Your task to perform on an android device: toggle improve location accuracy Image 0: 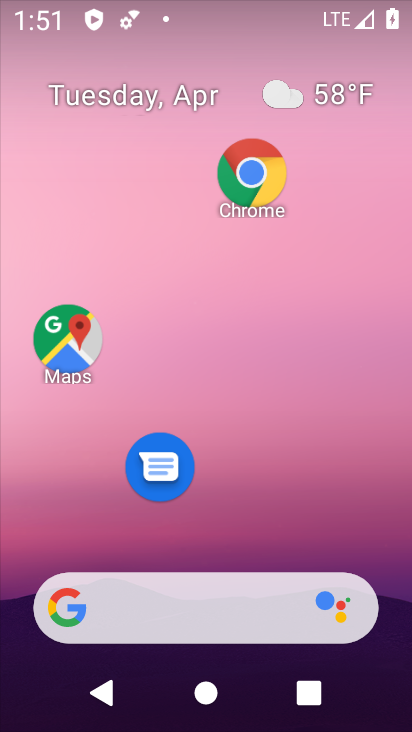
Step 0: drag from (232, 543) to (291, 44)
Your task to perform on an android device: toggle improve location accuracy Image 1: 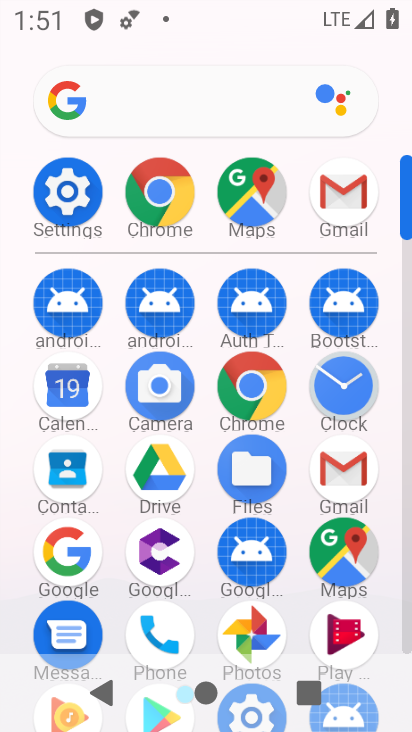
Step 1: click (82, 192)
Your task to perform on an android device: toggle improve location accuracy Image 2: 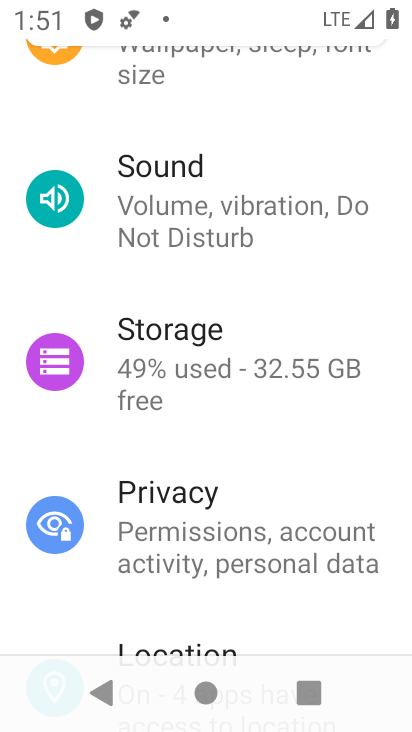
Step 2: drag from (200, 646) to (236, 264)
Your task to perform on an android device: toggle improve location accuracy Image 3: 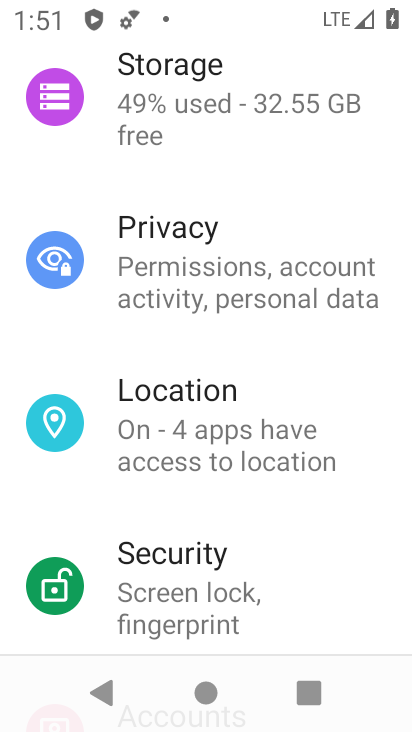
Step 3: click (213, 426)
Your task to perform on an android device: toggle improve location accuracy Image 4: 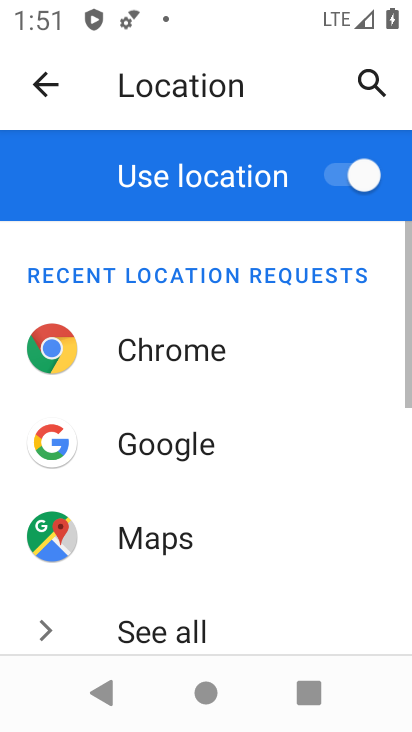
Step 4: drag from (244, 536) to (288, 243)
Your task to perform on an android device: toggle improve location accuracy Image 5: 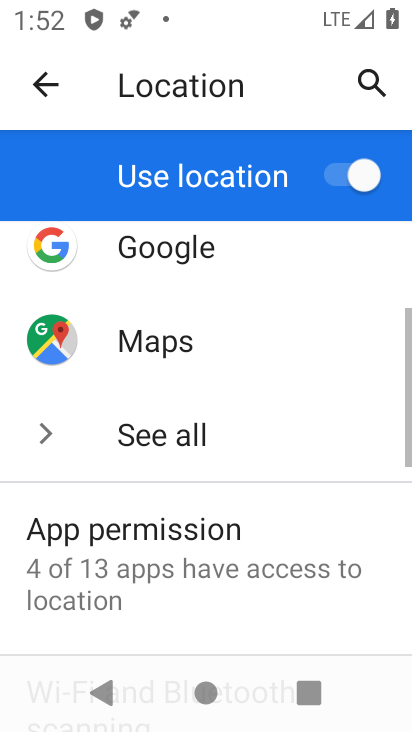
Step 5: drag from (289, 524) to (307, 243)
Your task to perform on an android device: toggle improve location accuracy Image 6: 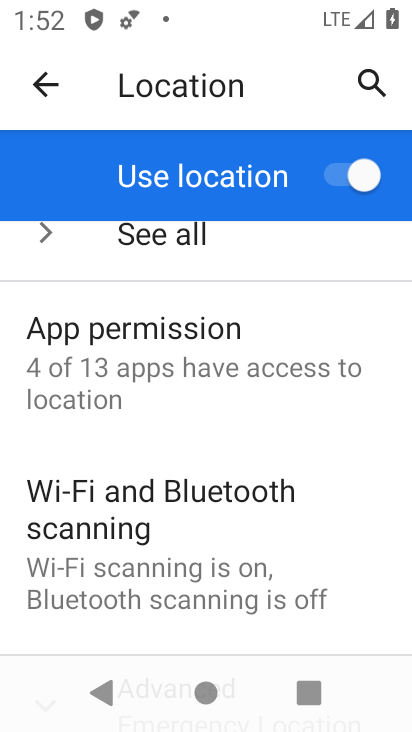
Step 6: drag from (264, 526) to (289, 158)
Your task to perform on an android device: toggle improve location accuracy Image 7: 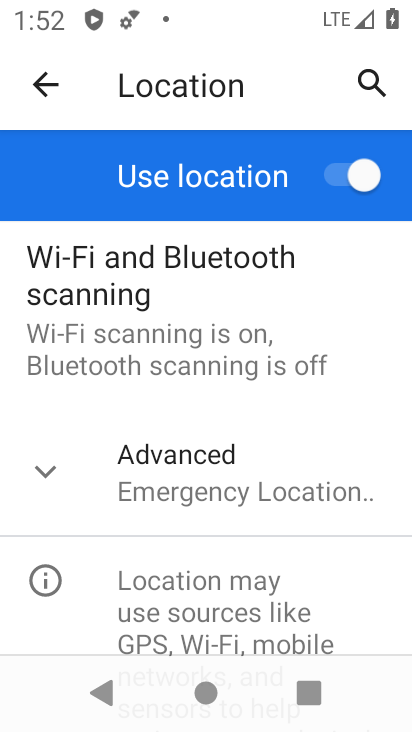
Step 7: click (200, 487)
Your task to perform on an android device: toggle improve location accuracy Image 8: 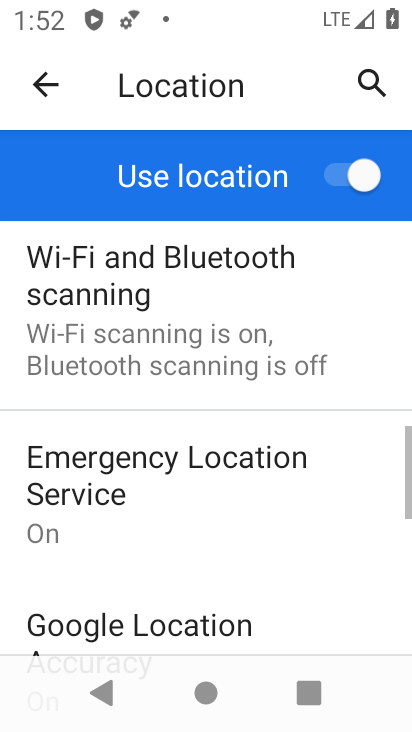
Step 8: drag from (198, 619) to (284, 260)
Your task to perform on an android device: toggle improve location accuracy Image 9: 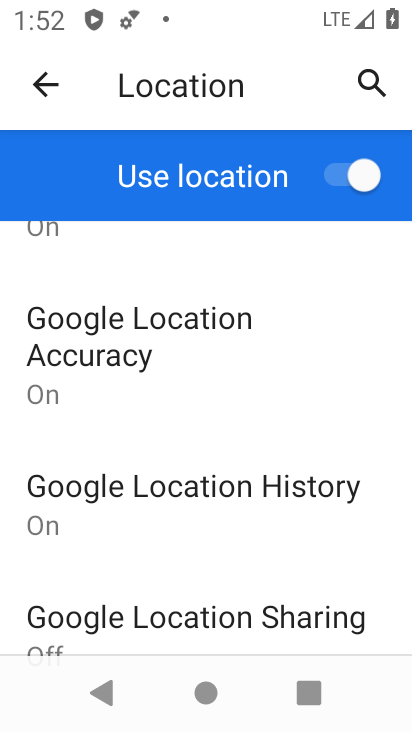
Step 9: click (146, 371)
Your task to perform on an android device: toggle improve location accuracy Image 10: 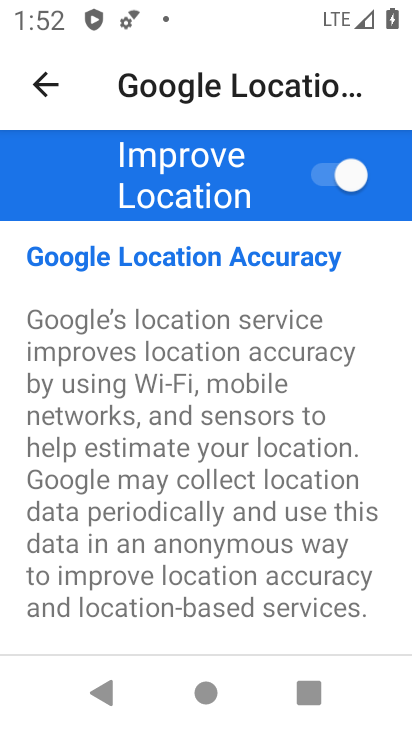
Step 10: click (330, 174)
Your task to perform on an android device: toggle improve location accuracy Image 11: 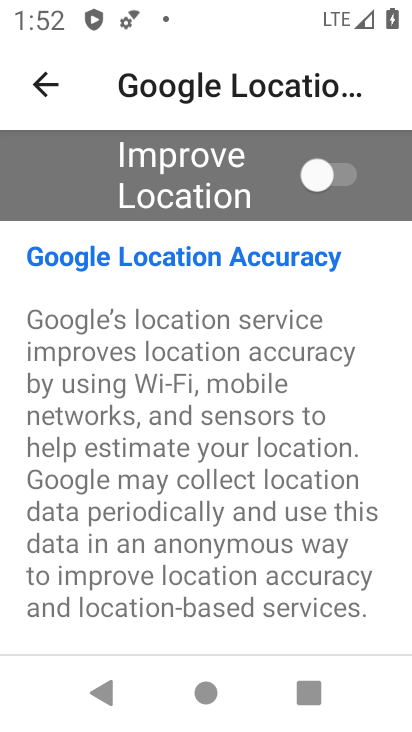
Step 11: task complete